Your task to perform on an android device: Turn off the flashlight Image 0: 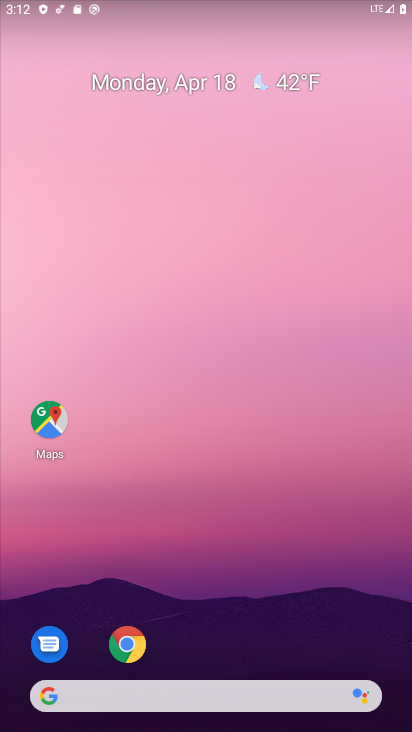
Step 0: drag from (220, 374) to (257, 147)
Your task to perform on an android device: Turn off the flashlight Image 1: 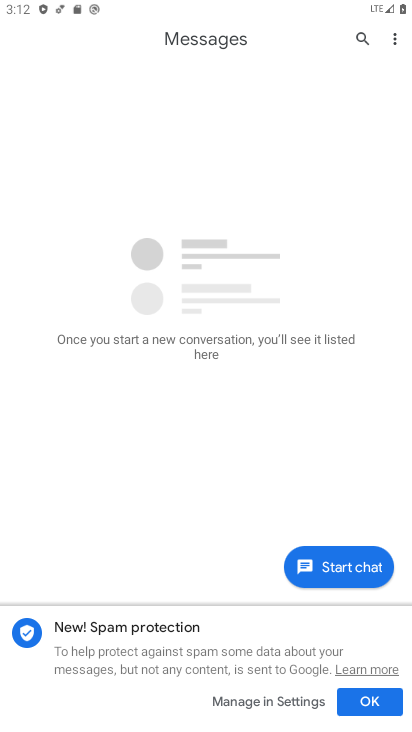
Step 1: press home button
Your task to perform on an android device: Turn off the flashlight Image 2: 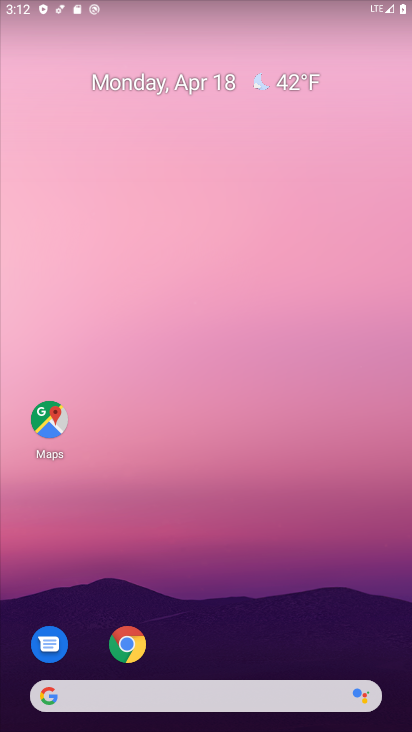
Step 2: drag from (208, 4) to (234, 454)
Your task to perform on an android device: Turn off the flashlight Image 3: 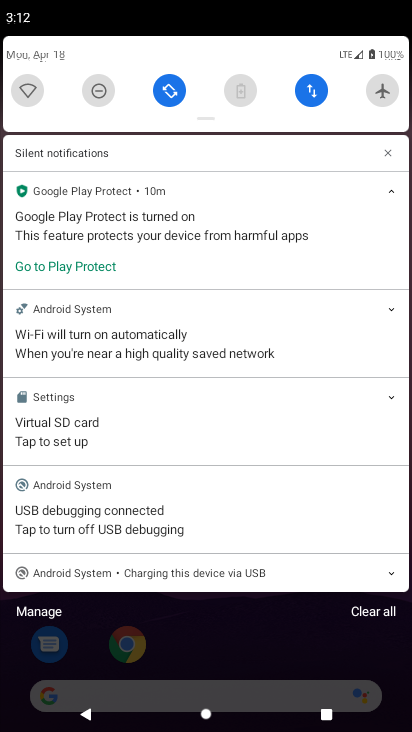
Step 3: drag from (237, 99) to (272, 433)
Your task to perform on an android device: Turn off the flashlight Image 4: 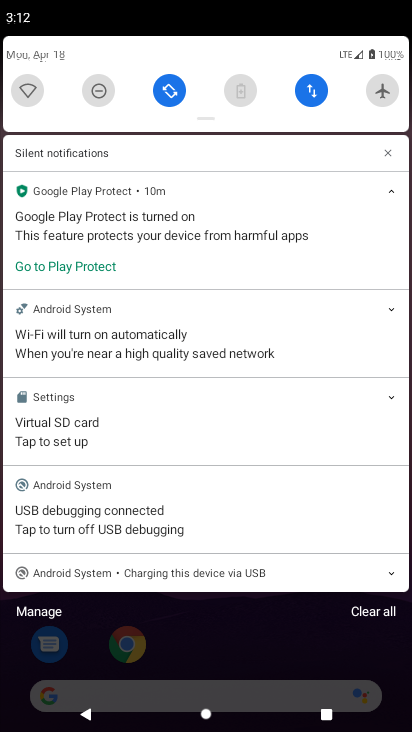
Step 4: drag from (229, 89) to (234, 415)
Your task to perform on an android device: Turn off the flashlight Image 5: 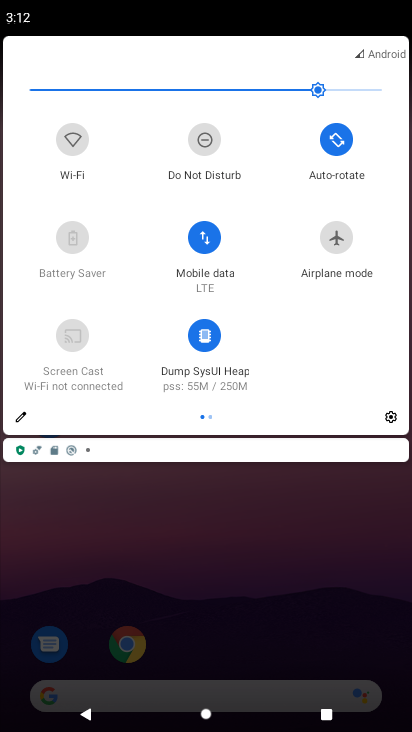
Step 5: drag from (323, 300) to (0, 368)
Your task to perform on an android device: Turn off the flashlight Image 6: 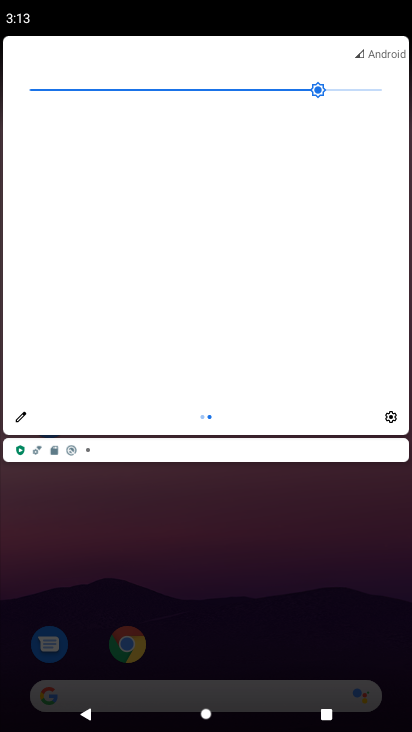
Step 6: drag from (296, 298) to (134, 327)
Your task to perform on an android device: Turn off the flashlight Image 7: 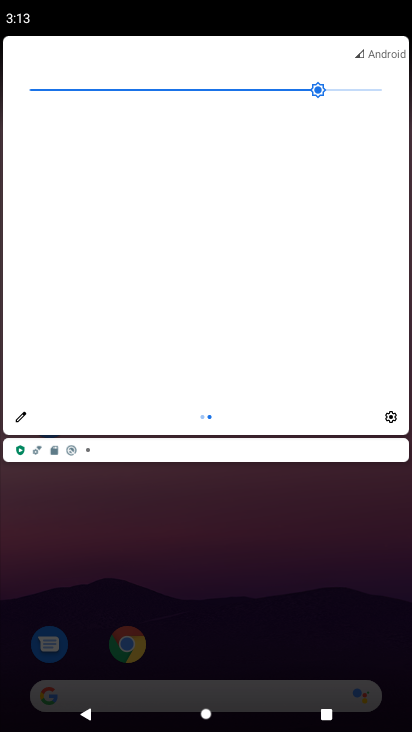
Step 7: click (19, 418)
Your task to perform on an android device: Turn off the flashlight Image 8: 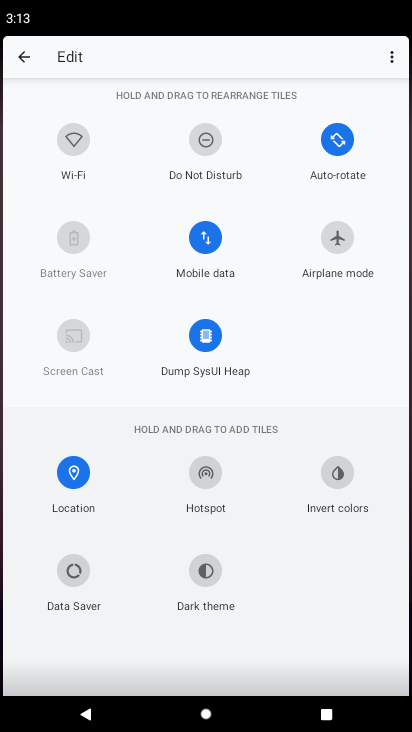
Step 8: task complete